Your task to perform on an android device: Go to ESPN.com Image 0: 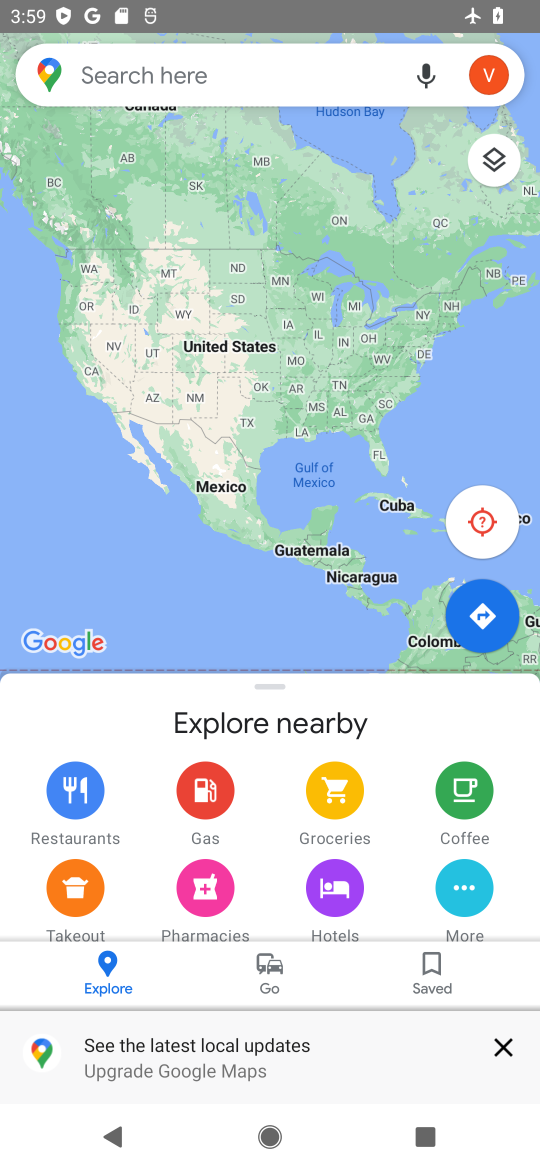
Step 0: press back button
Your task to perform on an android device: Go to ESPN.com Image 1: 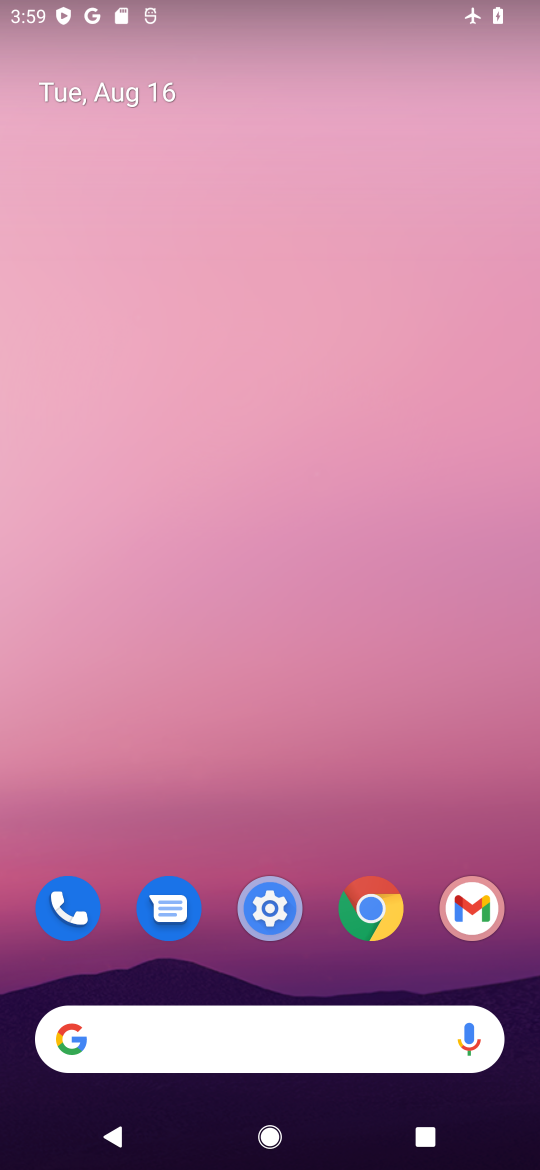
Step 1: click (365, 903)
Your task to perform on an android device: Go to ESPN.com Image 2: 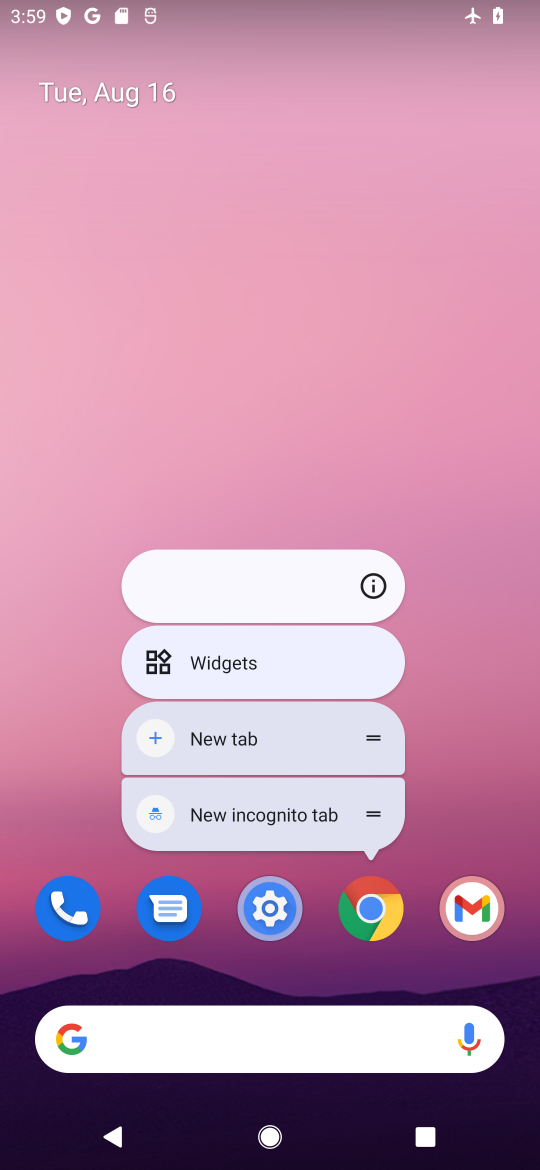
Step 2: click (359, 923)
Your task to perform on an android device: Go to ESPN.com Image 3: 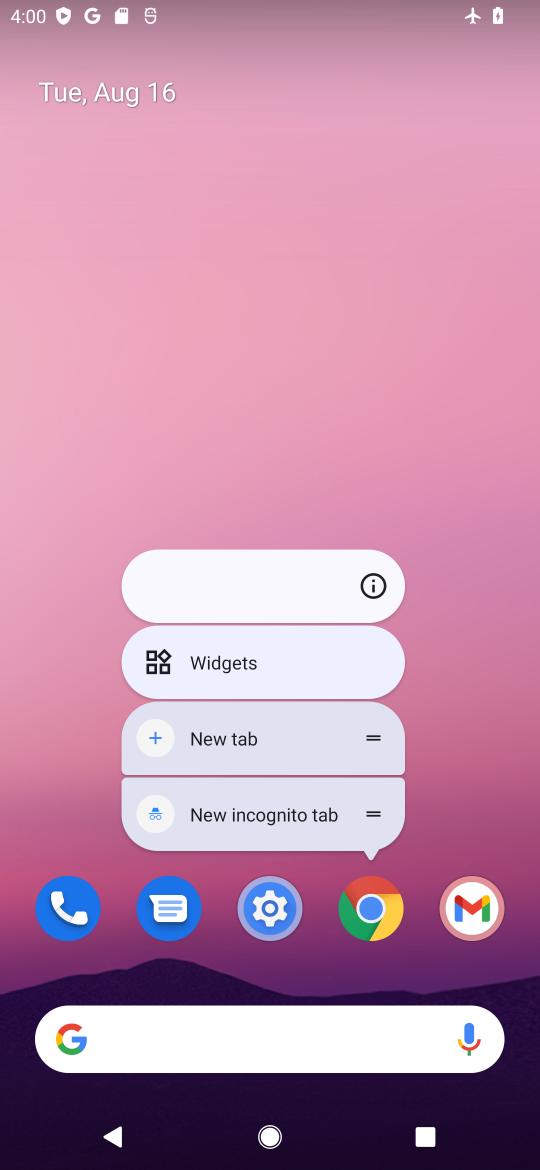
Step 3: click (385, 915)
Your task to perform on an android device: Go to ESPN.com Image 4: 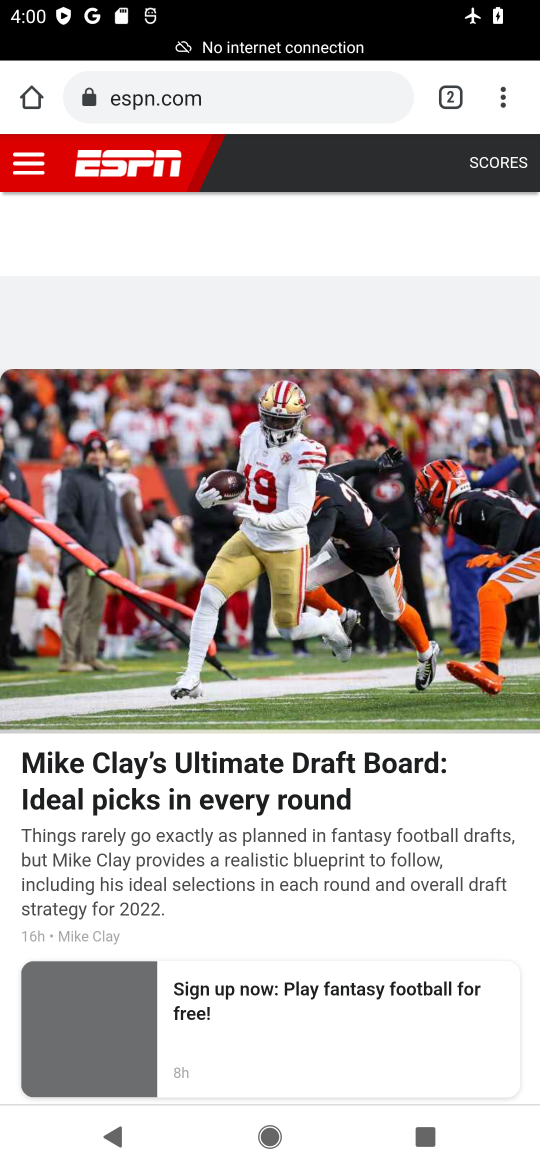
Step 4: task complete